Your task to perform on an android device: What's the weather? Image 0: 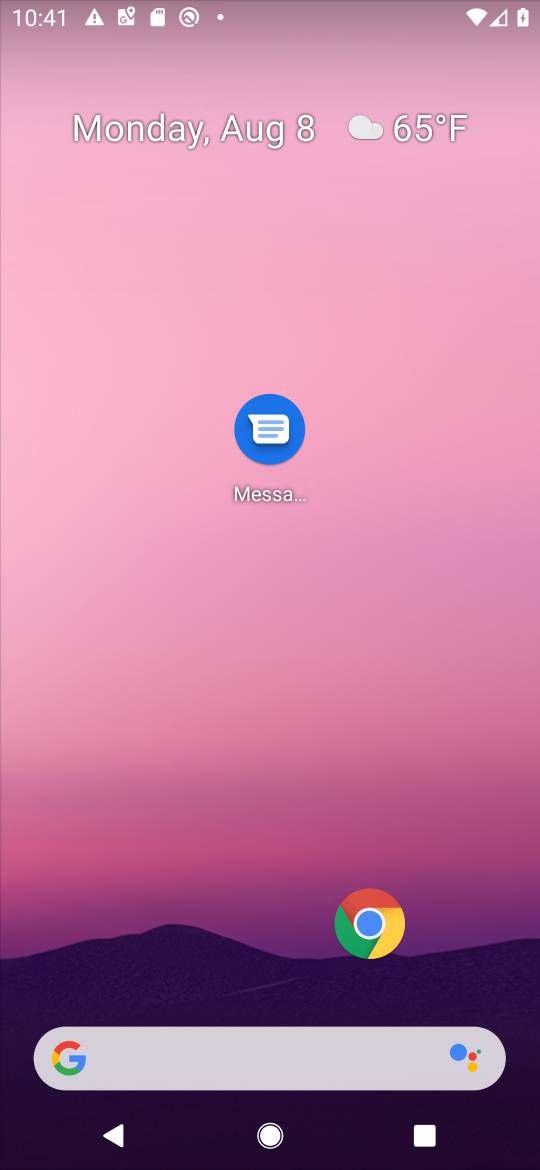
Step 0: click (183, 1048)
Your task to perform on an android device: What's the weather? Image 1: 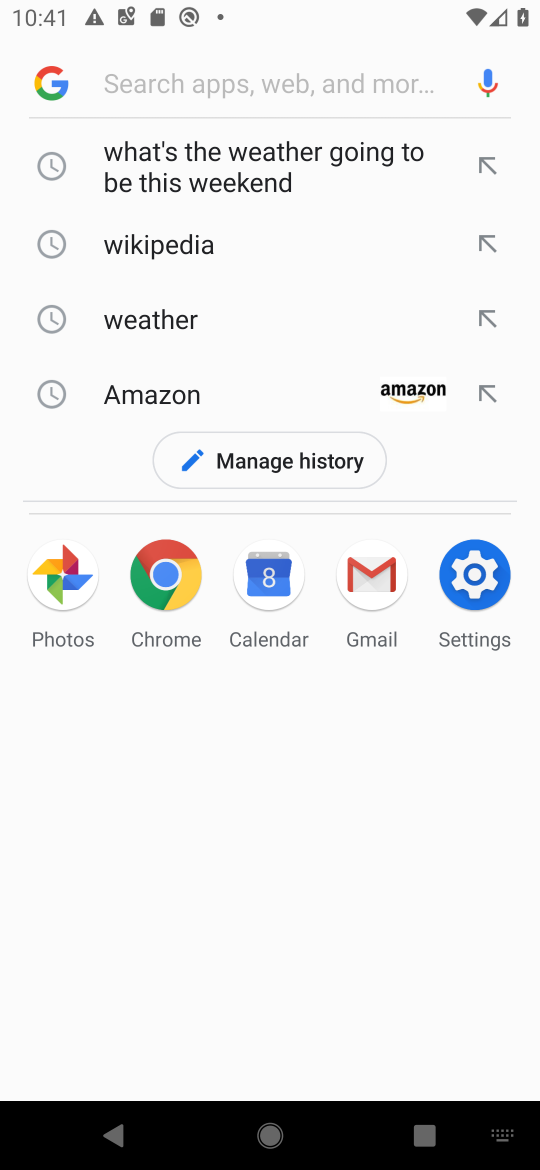
Step 1: type "What's the weather?"
Your task to perform on an android device: What's the weather? Image 2: 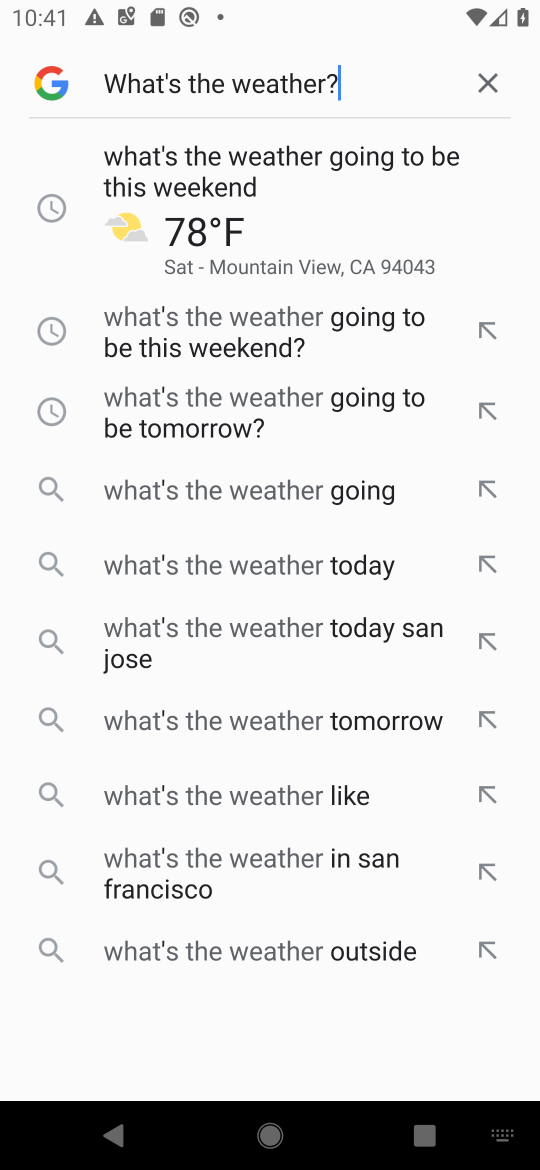
Step 2: type ""
Your task to perform on an android device: What's the weather? Image 3: 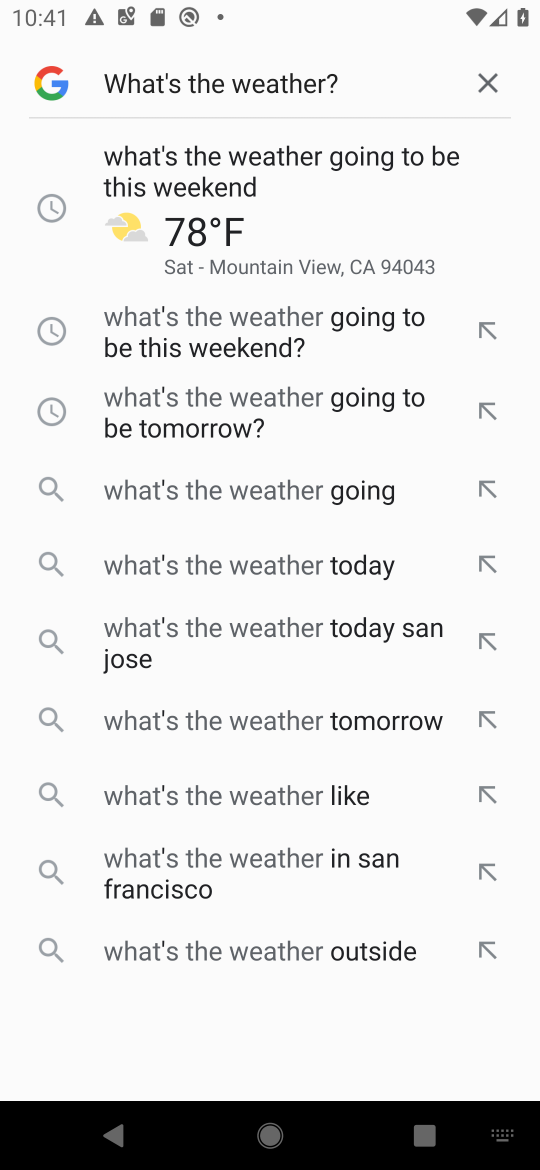
Step 3: task complete